Your task to perform on an android device: Open the web browser Image 0: 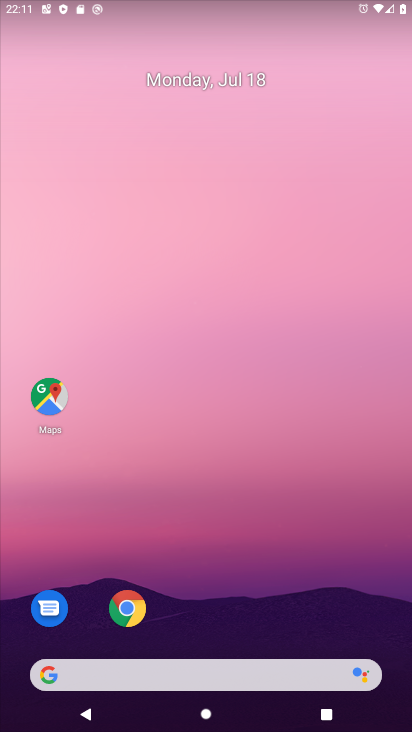
Step 0: click (72, 671)
Your task to perform on an android device: Open the web browser Image 1: 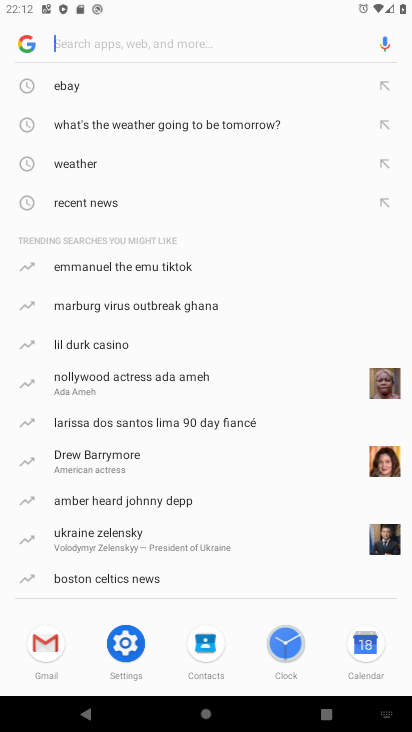
Step 1: task complete